Your task to perform on an android device: Open accessibility settings Image 0: 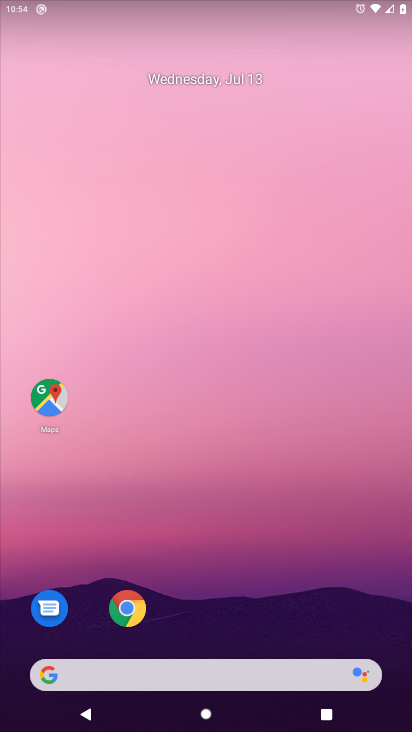
Step 0: drag from (151, 256) to (172, 145)
Your task to perform on an android device: Open accessibility settings Image 1: 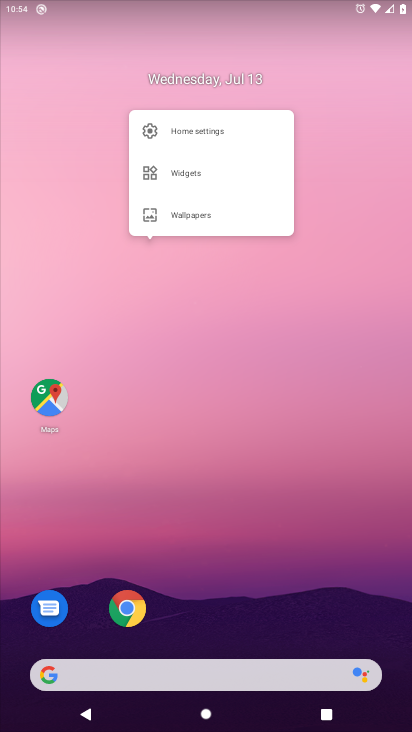
Step 1: drag from (17, 698) to (237, 0)
Your task to perform on an android device: Open accessibility settings Image 2: 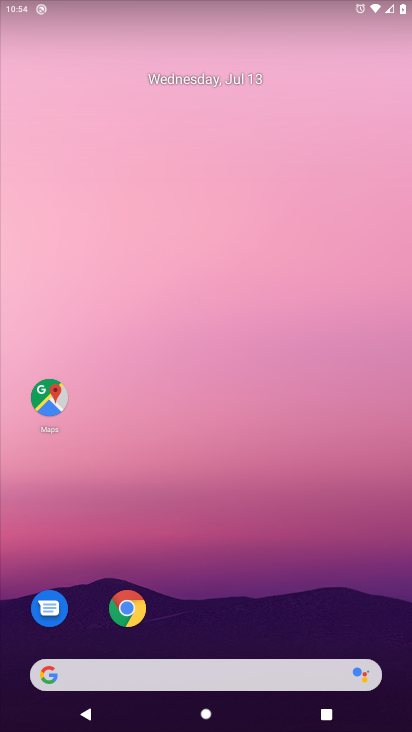
Step 2: drag from (39, 721) to (288, 2)
Your task to perform on an android device: Open accessibility settings Image 3: 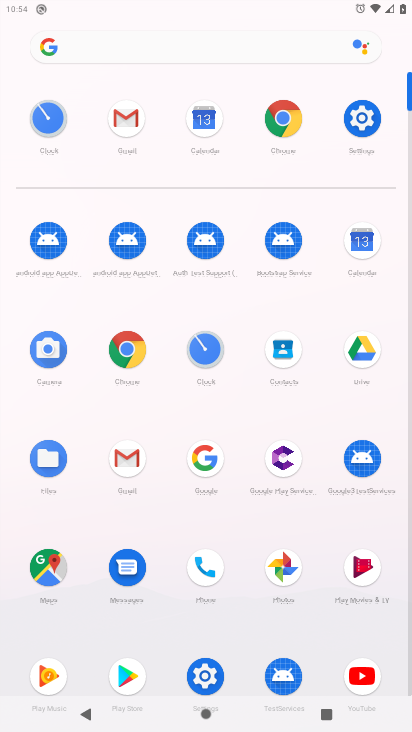
Step 3: click (210, 657)
Your task to perform on an android device: Open accessibility settings Image 4: 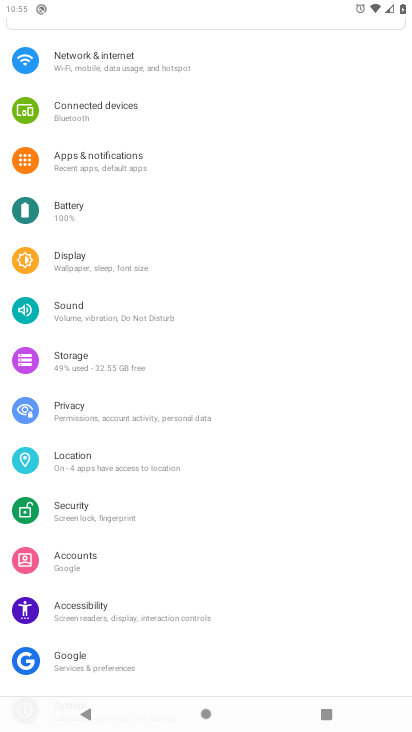
Step 4: click (108, 613)
Your task to perform on an android device: Open accessibility settings Image 5: 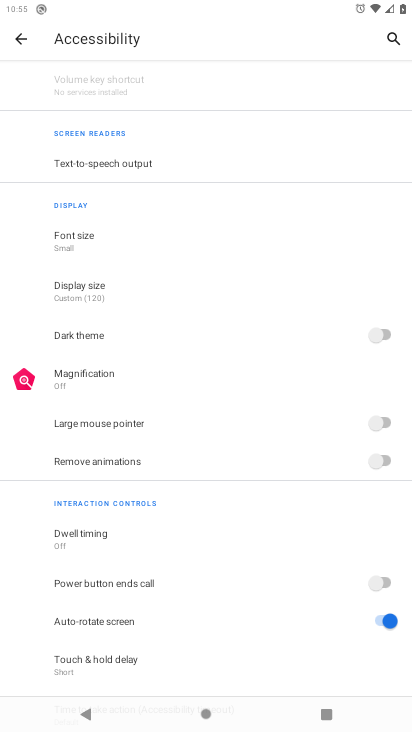
Step 5: task complete